Your task to perform on an android device: change notifications settings Image 0: 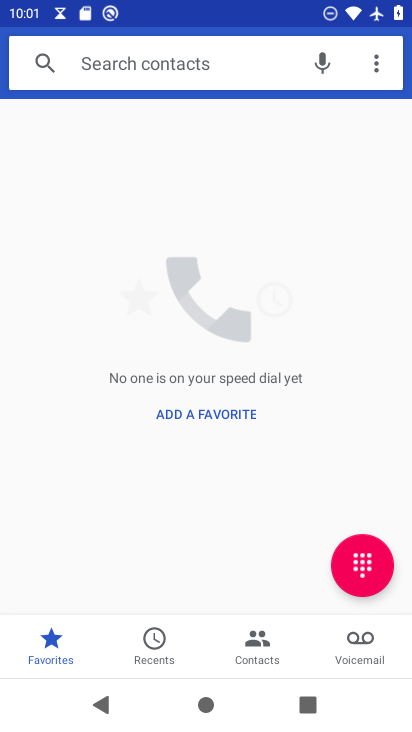
Step 0: press home button
Your task to perform on an android device: change notifications settings Image 1: 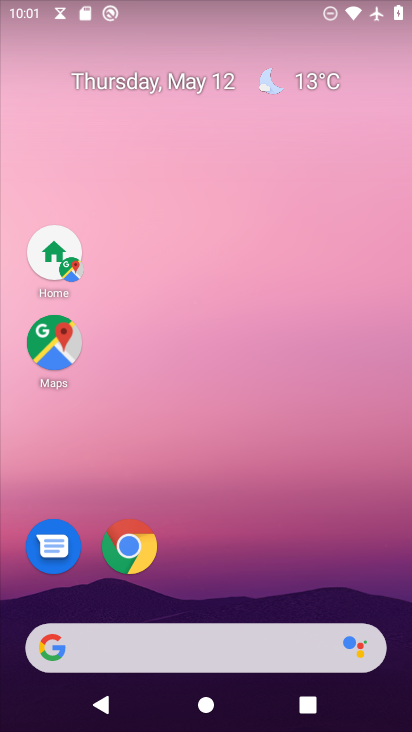
Step 1: drag from (176, 643) to (356, 80)
Your task to perform on an android device: change notifications settings Image 2: 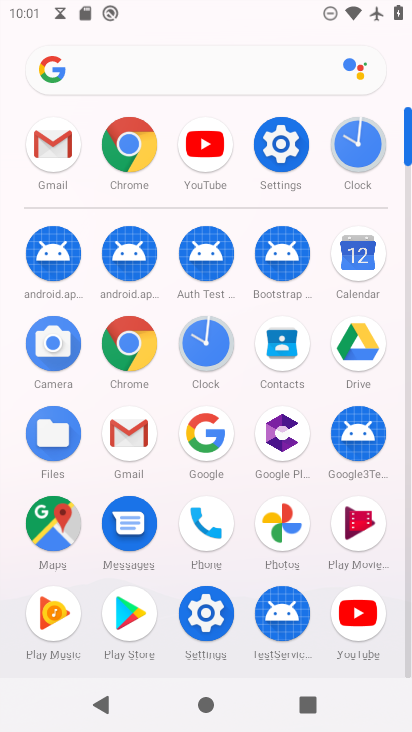
Step 2: click (285, 147)
Your task to perform on an android device: change notifications settings Image 3: 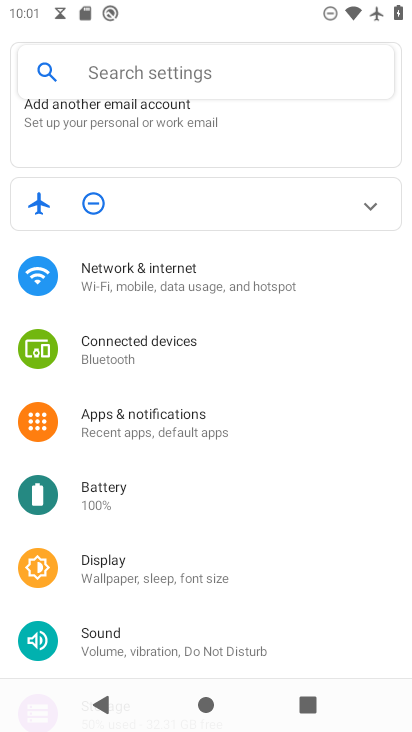
Step 3: click (191, 424)
Your task to perform on an android device: change notifications settings Image 4: 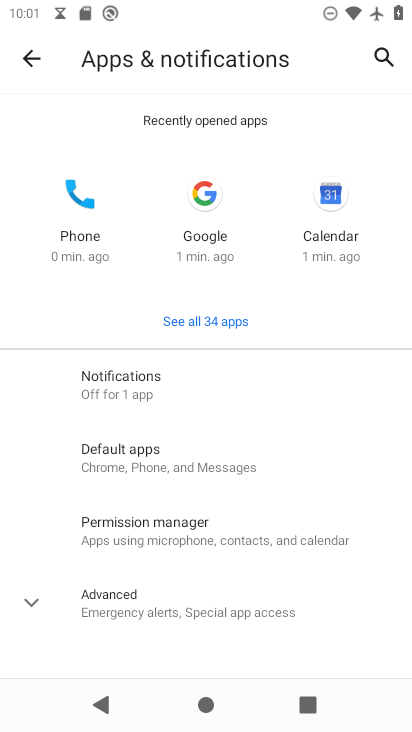
Step 4: click (145, 393)
Your task to perform on an android device: change notifications settings Image 5: 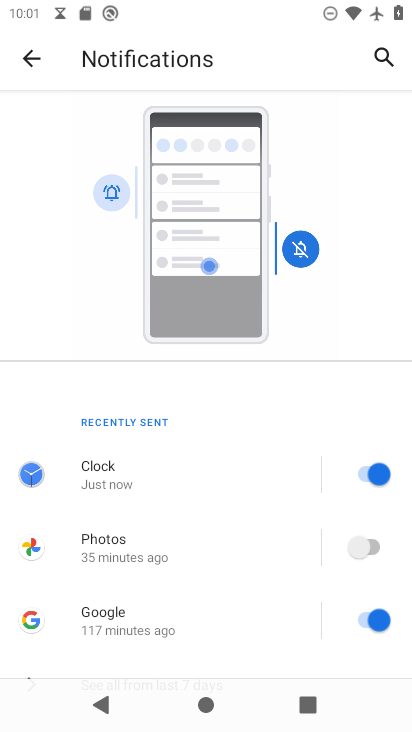
Step 5: task complete